Your task to perform on an android device: remove spam from my inbox in the gmail app Image 0: 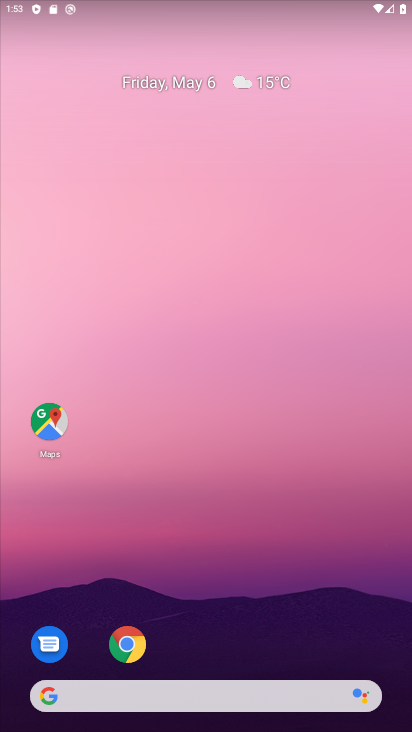
Step 0: drag from (223, 639) to (278, 68)
Your task to perform on an android device: remove spam from my inbox in the gmail app Image 1: 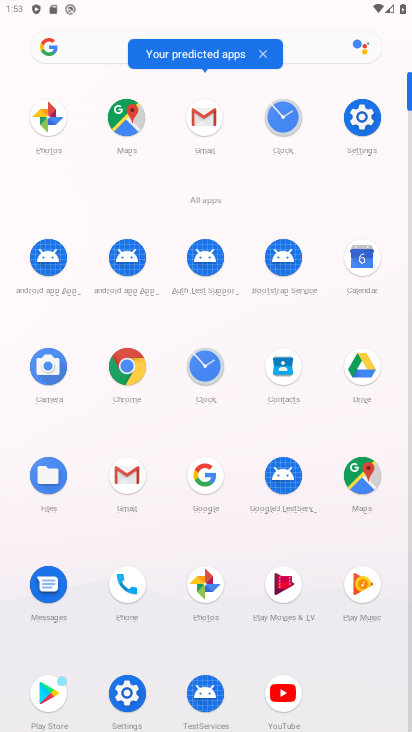
Step 1: click (210, 122)
Your task to perform on an android device: remove spam from my inbox in the gmail app Image 2: 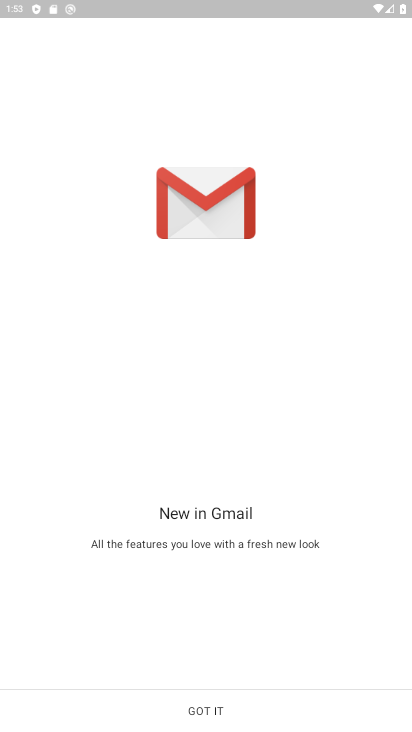
Step 2: click (202, 705)
Your task to perform on an android device: remove spam from my inbox in the gmail app Image 3: 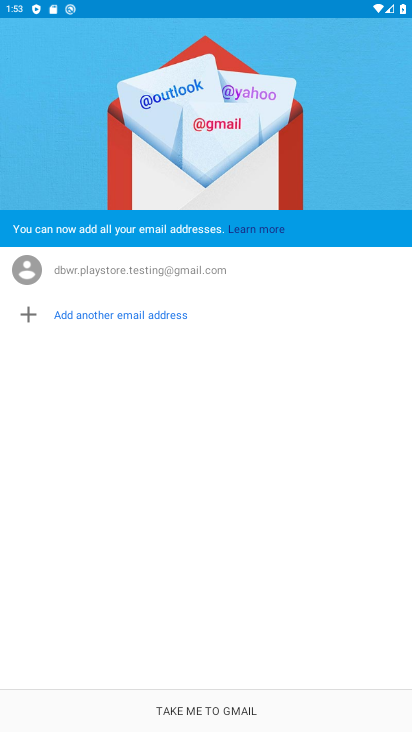
Step 3: click (202, 705)
Your task to perform on an android device: remove spam from my inbox in the gmail app Image 4: 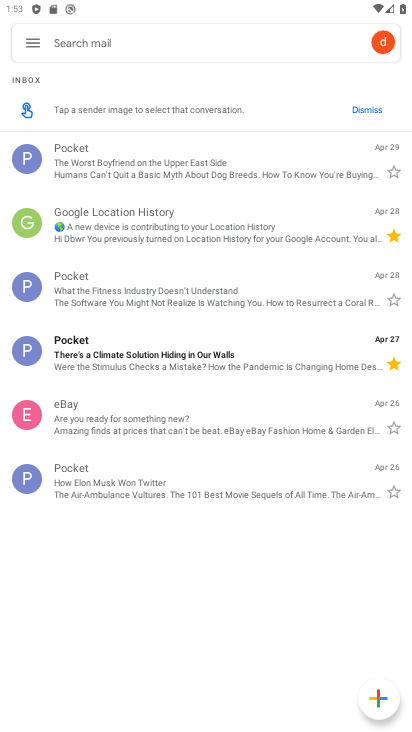
Step 4: click (35, 46)
Your task to perform on an android device: remove spam from my inbox in the gmail app Image 5: 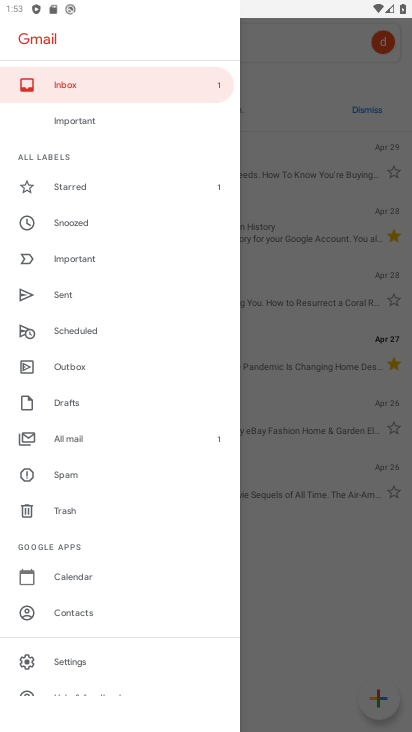
Step 5: click (131, 470)
Your task to perform on an android device: remove spam from my inbox in the gmail app Image 6: 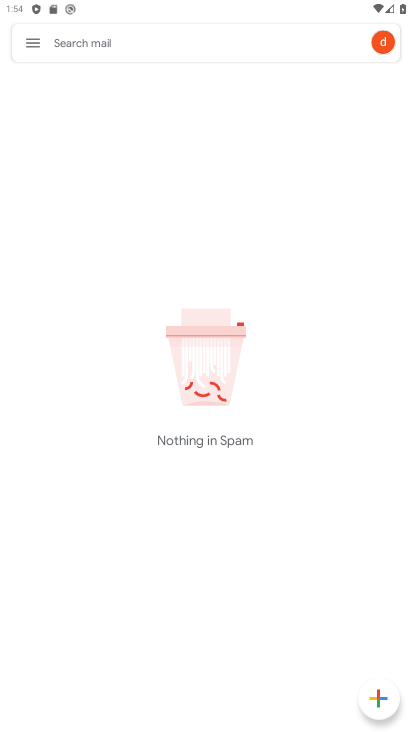
Step 6: task complete